Your task to perform on an android device: Open settings on Google Maps Image 0: 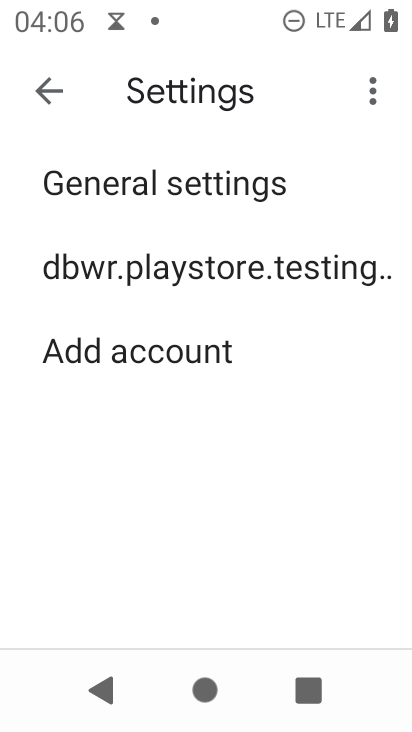
Step 0: press home button
Your task to perform on an android device: Open settings on Google Maps Image 1: 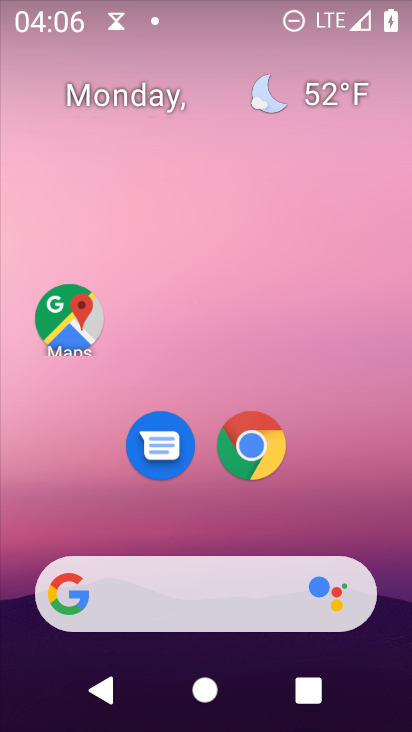
Step 1: click (52, 324)
Your task to perform on an android device: Open settings on Google Maps Image 2: 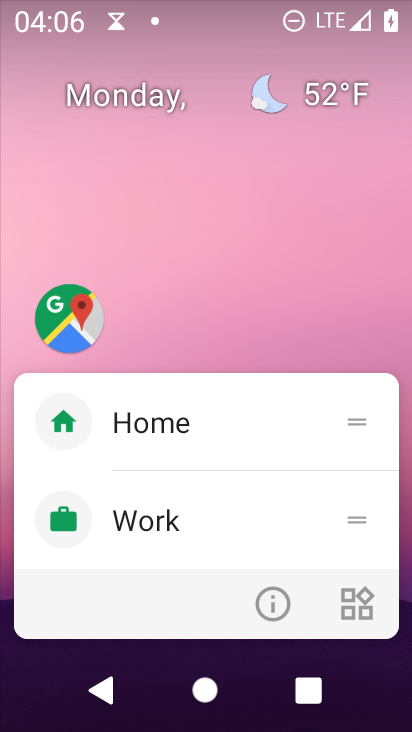
Step 2: click (54, 322)
Your task to perform on an android device: Open settings on Google Maps Image 3: 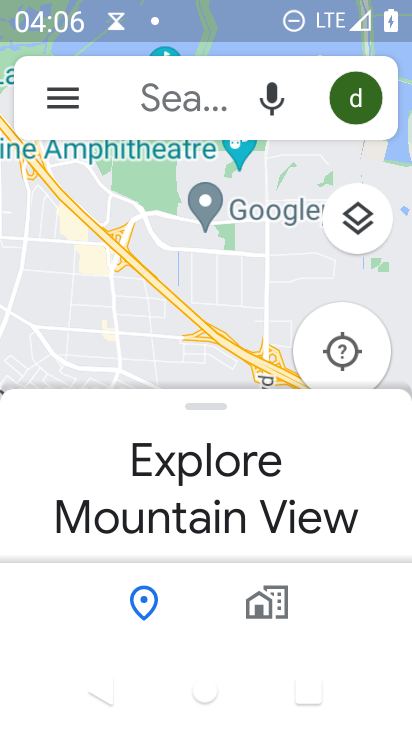
Step 3: click (74, 108)
Your task to perform on an android device: Open settings on Google Maps Image 4: 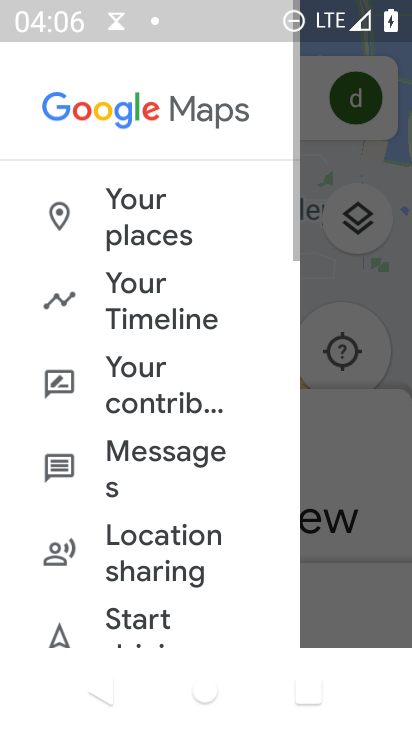
Step 4: drag from (116, 525) to (162, 120)
Your task to perform on an android device: Open settings on Google Maps Image 5: 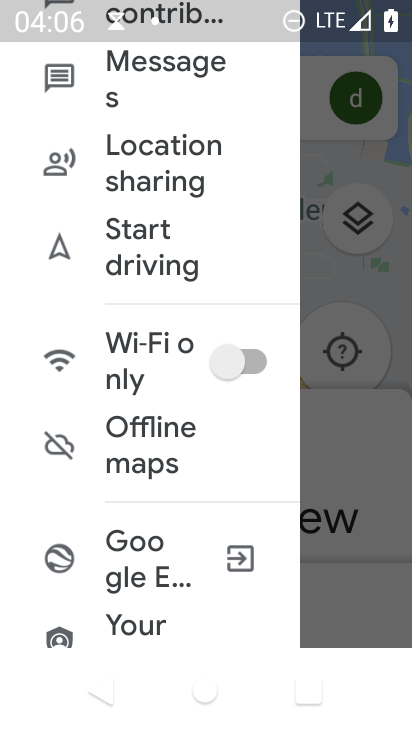
Step 5: drag from (120, 596) to (160, 207)
Your task to perform on an android device: Open settings on Google Maps Image 6: 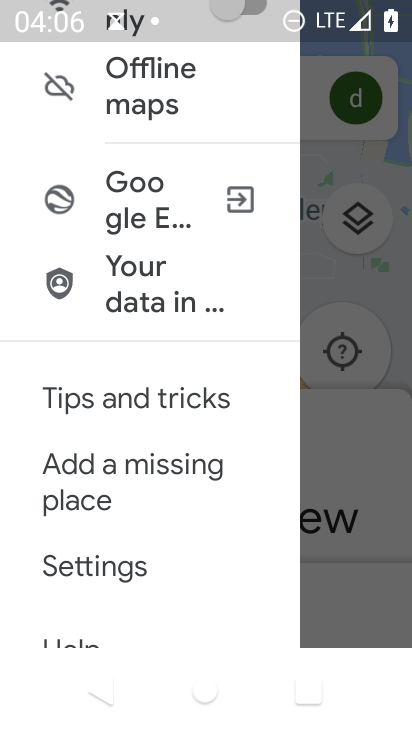
Step 6: click (86, 574)
Your task to perform on an android device: Open settings on Google Maps Image 7: 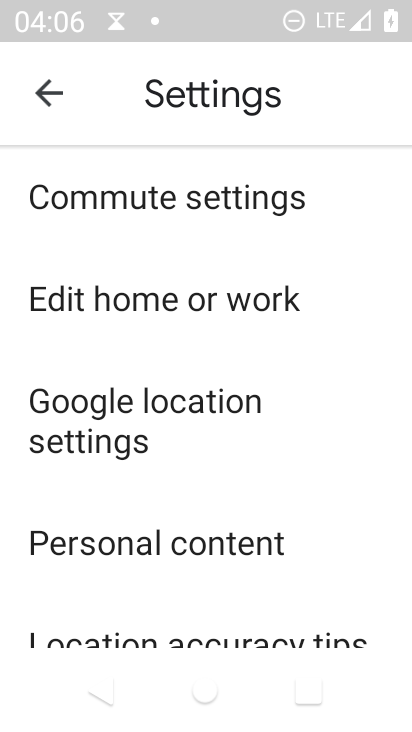
Step 7: task complete